Your task to perform on an android device: Turn on the flashlight Image 0: 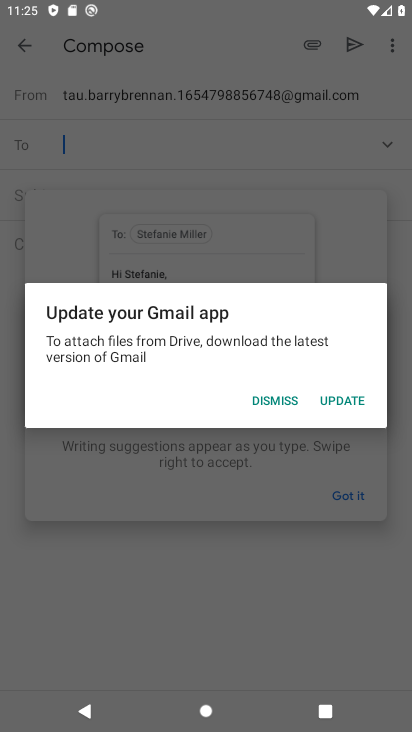
Step 0: press home button
Your task to perform on an android device: Turn on the flashlight Image 1: 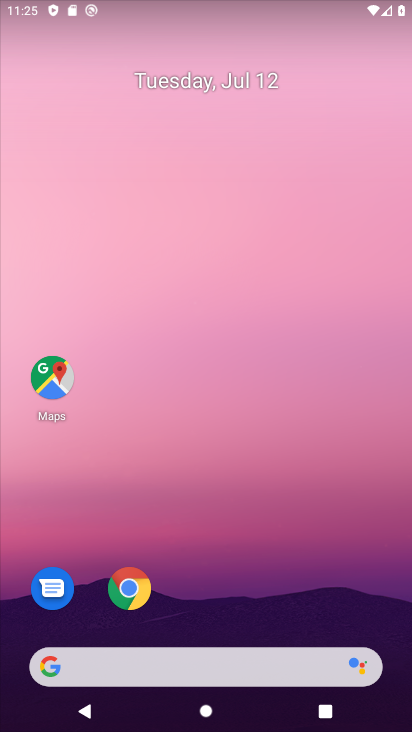
Step 1: drag from (174, 0) to (176, 582)
Your task to perform on an android device: Turn on the flashlight Image 2: 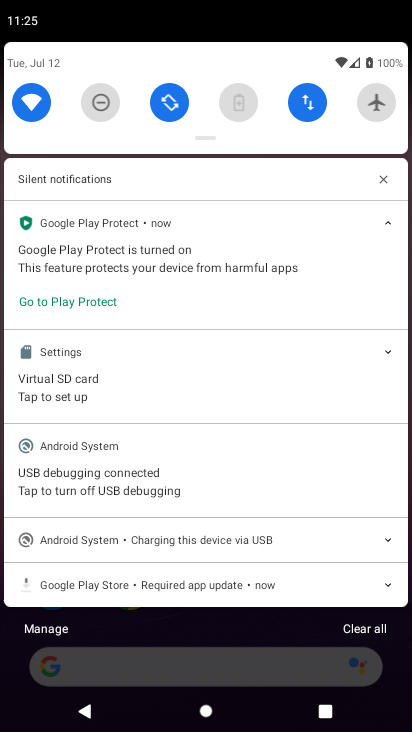
Step 2: drag from (219, 103) to (282, 643)
Your task to perform on an android device: Turn on the flashlight Image 3: 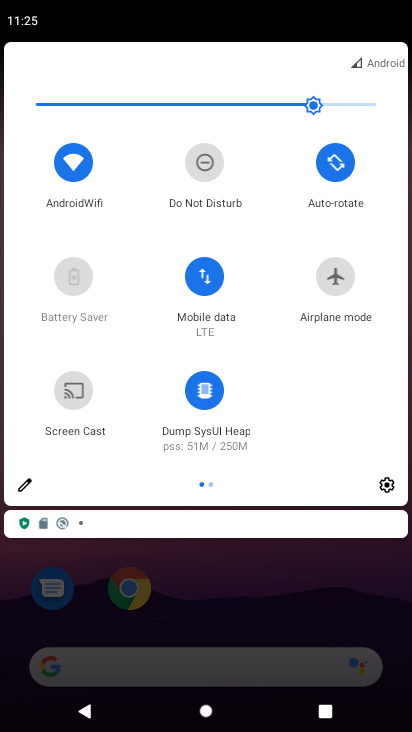
Step 3: drag from (337, 374) to (6, 479)
Your task to perform on an android device: Turn on the flashlight Image 4: 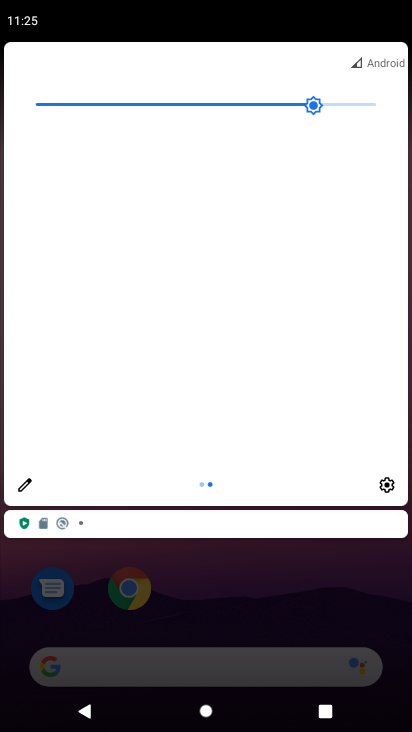
Step 4: click (33, 479)
Your task to perform on an android device: Turn on the flashlight Image 5: 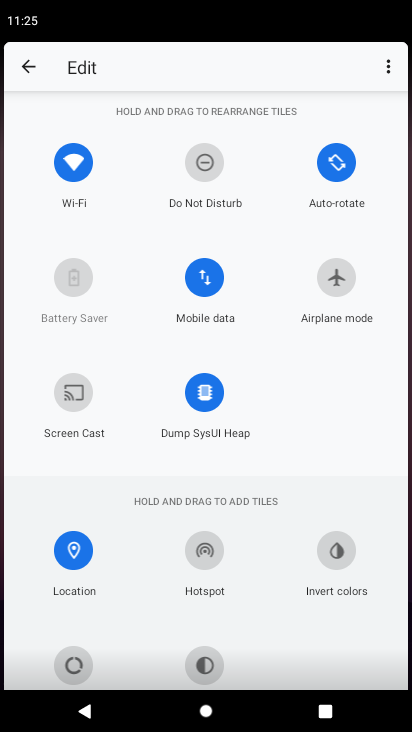
Step 5: task complete